Your task to perform on an android device: remove spam from my inbox in the gmail app Image 0: 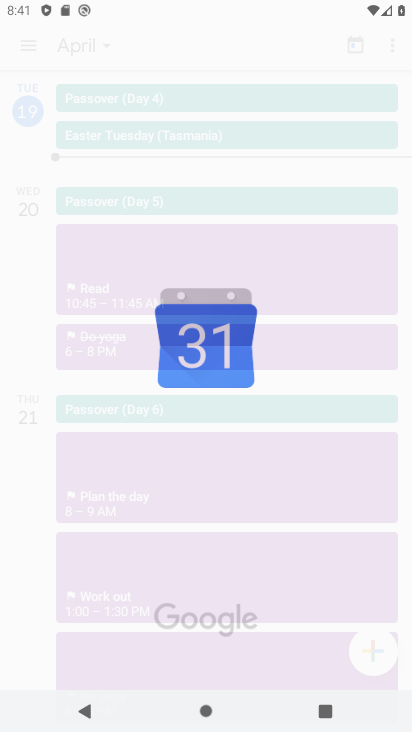
Step 0: drag from (210, 494) to (215, 92)
Your task to perform on an android device: remove spam from my inbox in the gmail app Image 1: 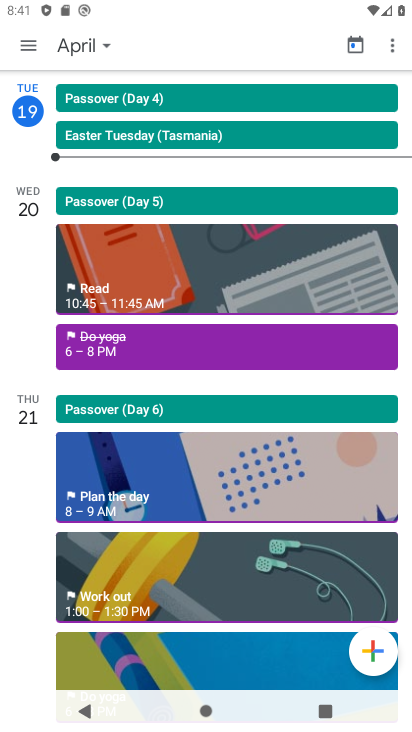
Step 1: press home button
Your task to perform on an android device: remove spam from my inbox in the gmail app Image 2: 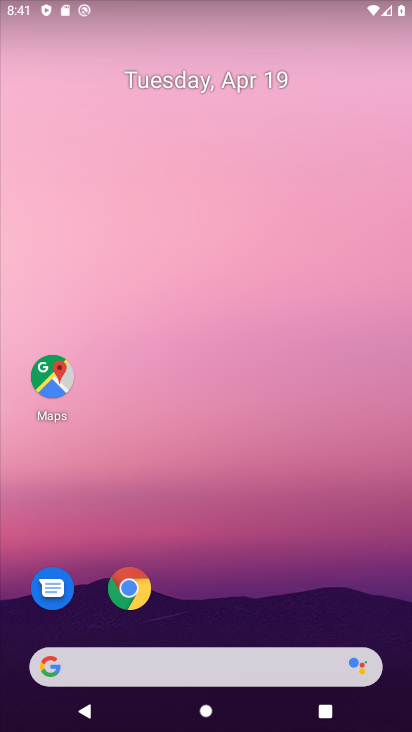
Step 2: drag from (207, 617) to (252, 172)
Your task to perform on an android device: remove spam from my inbox in the gmail app Image 3: 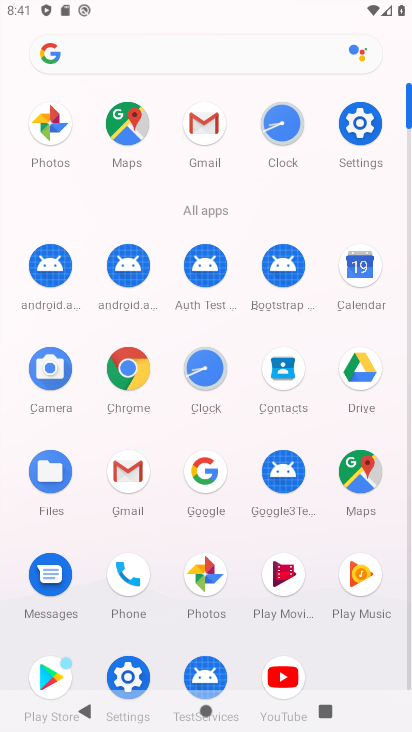
Step 3: click (120, 461)
Your task to perform on an android device: remove spam from my inbox in the gmail app Image 4: 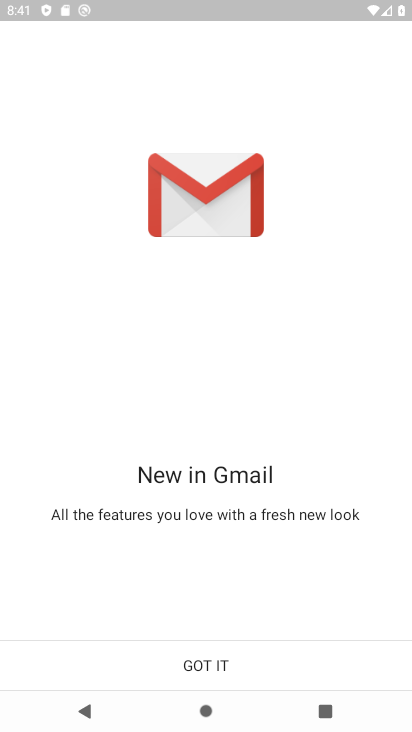
Step 4: click (208, 666)
Your task to perform on an android device: remove spam from my inbox in the gmail app Image 5: 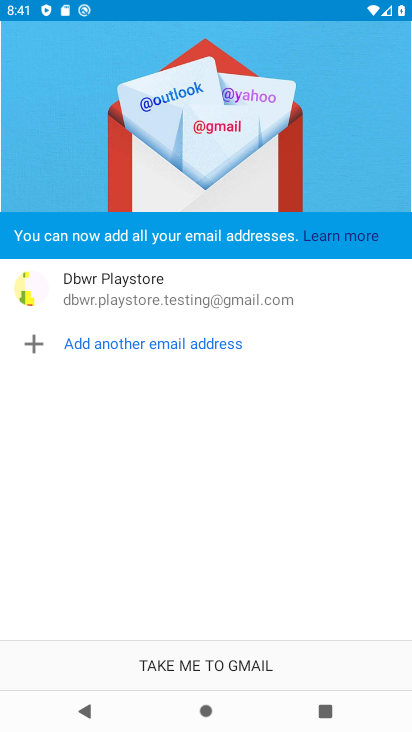
Step 5: click (214, 666)
Your task to perform on an android device: remove spam from my inbox in the gmail app Image 6: 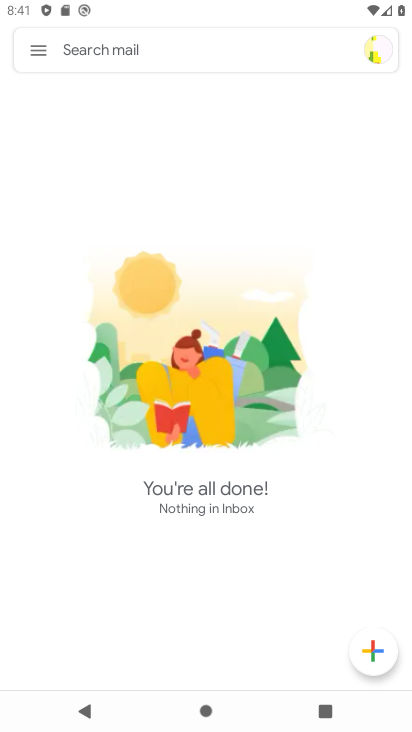
Step 6: click (48, 44)
Your task to perform on an android device: remove spam from my inbox in the gmail app Image 7: 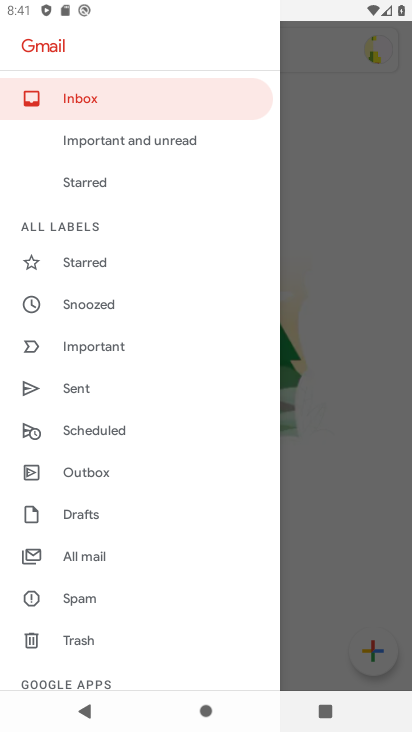
Step 7: click (93, 594)
Your task to perform on an android device: remove spam from my inbox in the gmail app Image 8: 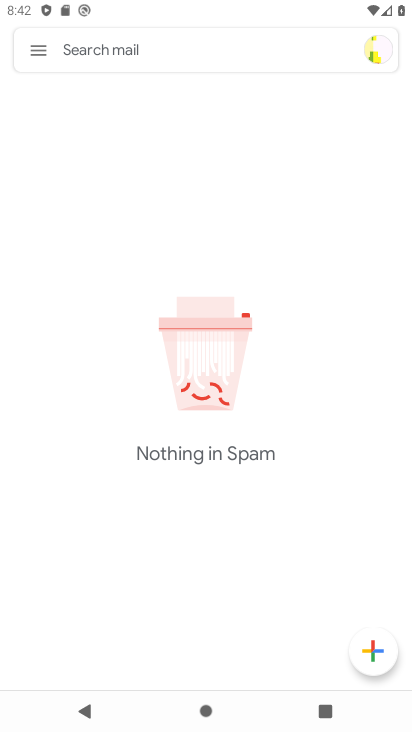
Step 8: task complete